Your task to perform on an android device: Go to settings Image 0: 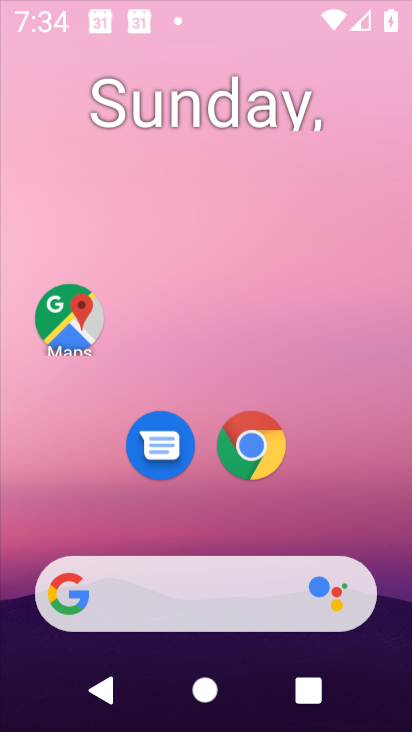
Step 0: click (385, 352)
Your task to perform on an android device: Go to settings Image 1: 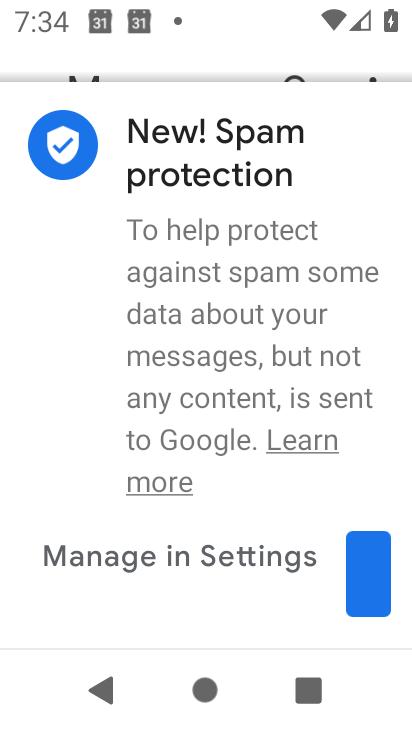
Step 1: press home button
Your task to perform on an android device: Go to settings Image 2: 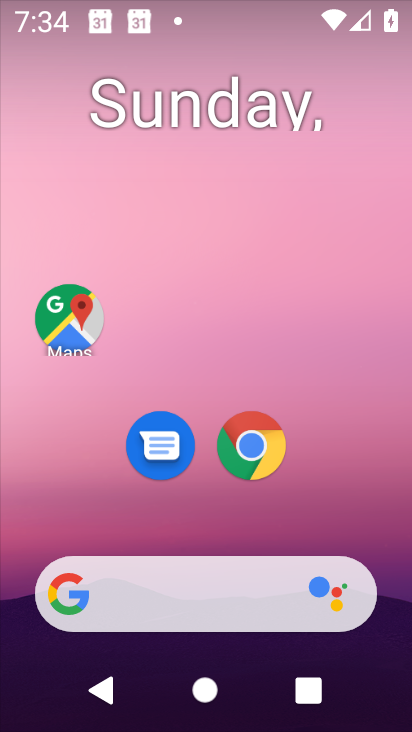
Step 2: drag from (16, 573) to (278, 138)
Your task to perform on an android device: Go to settings Image 3: 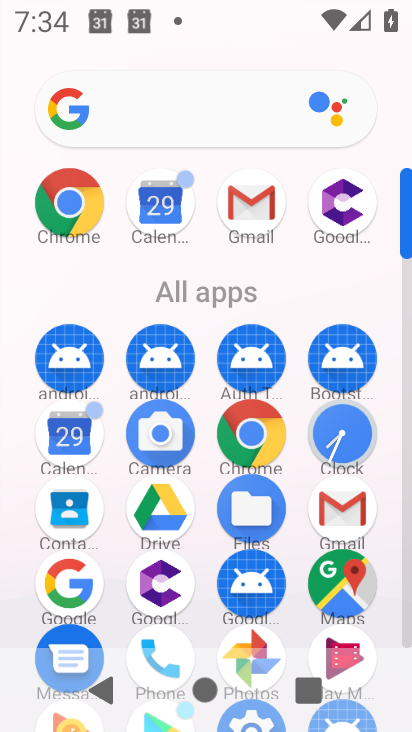
Step 3: drag from (28, 580) to (249, 205)
Your task to perform on an android device: Go to settings Image 4: 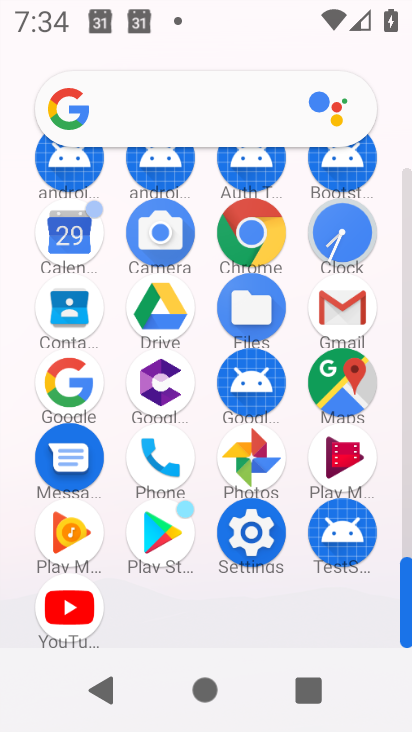
Step 4: click (237, 549)
Your task to perform on an android device: Go to settings Image 5: 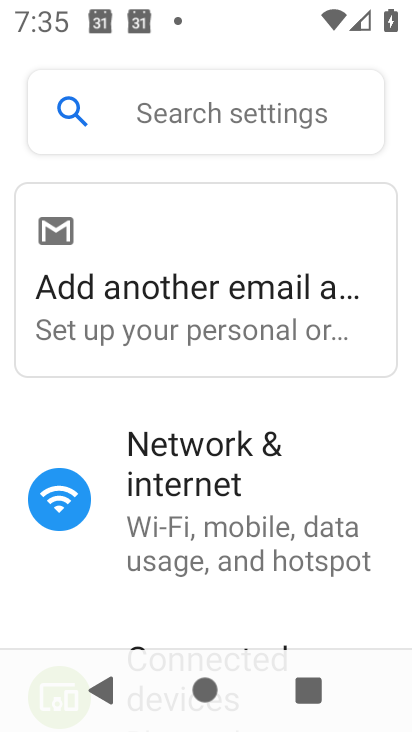
Step 5: task complete